Your task to perform on an android device: What's the weather? Image 0: 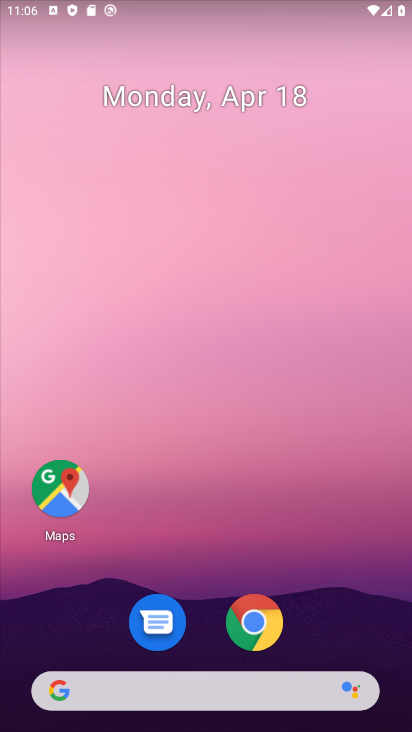
Step 0: drag from (199, 645) to (229, 205)
Your task to perform on an android device: What's the weather? Image 1: 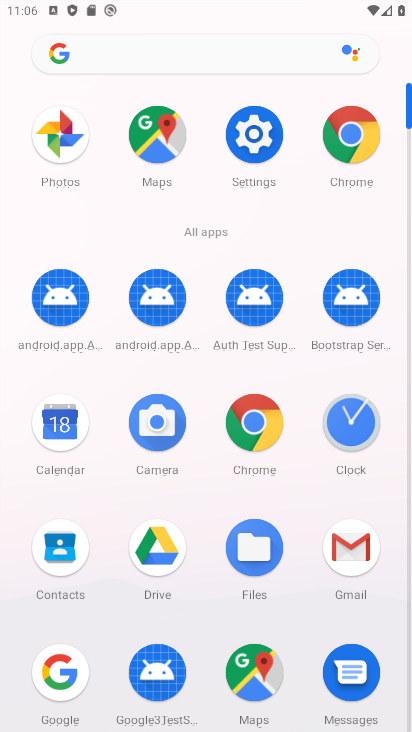
Step 1: drag from (311, 577) to (309, 179)
Your task to perform on an android device: What's the weather? Image 2: 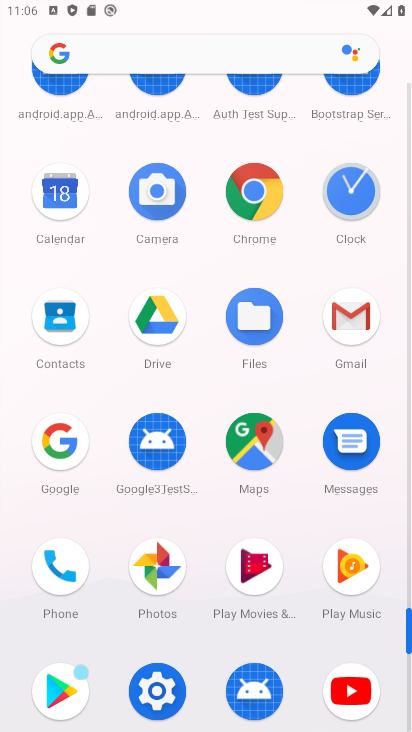
Step 2: click (63, 455)
Your task to perform on an android device: What's the weather? Image 3: 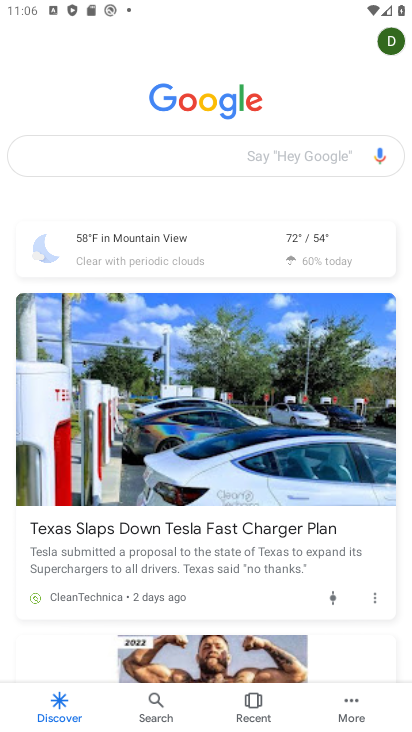
Step 3: click (102, 243)
Your task to perform on an android device: What's the weather? Image 4: 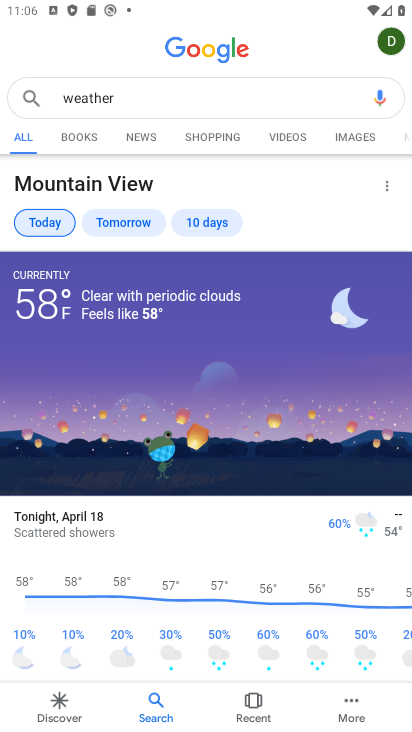
Step 4: task complete